Your task to perform on an android device: turn off data saver in the chrome app Image 0: 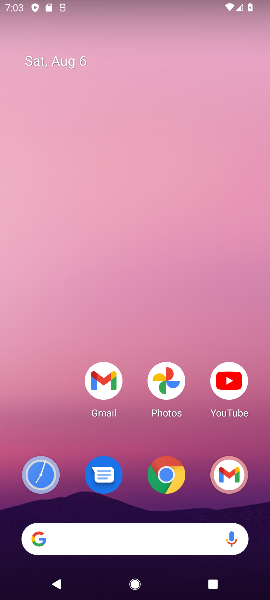
Step 0: click (170, 462)
Your task to perform on an android device: turn off data saver in the chrome app Image 1: 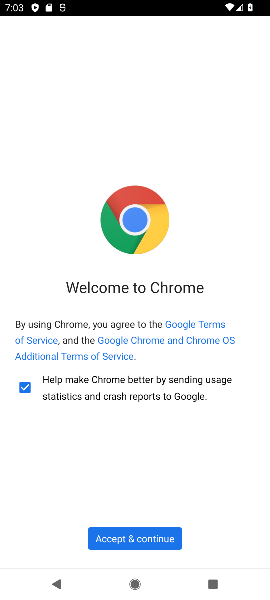
Step 1: click (138, 530)
Your task to perform on an android device: turn off data saver in the chrome app Image 2: 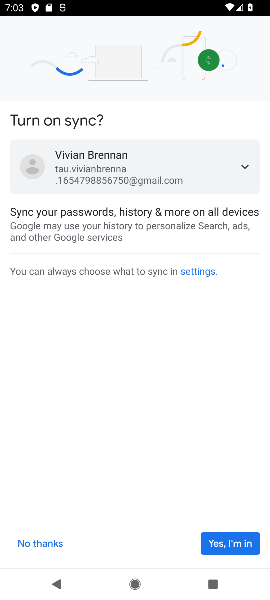
Step 2: click (209, 542)
Your task to perform on an android device: turn off data saver in the chrome app Image 3: 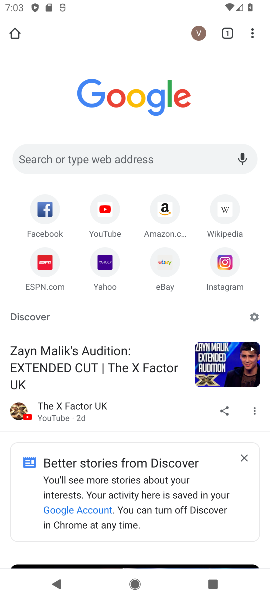
Step 3: click (251, 33)
Your task to perform on an android device: turn off data saver in the chrome app Image 4: 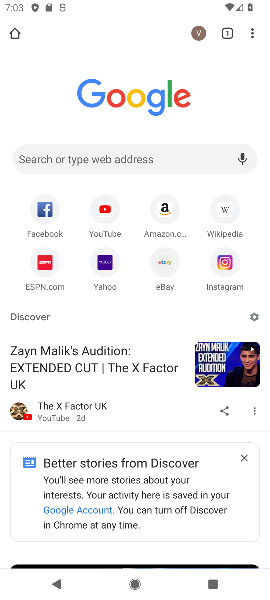
Step 4: click (251, 34)
Your task to perform on an android device: turn off data saver in the chrome app Image 5: 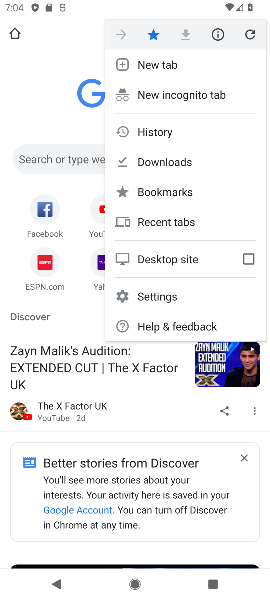
Step 5: click (160, 297)
Your task to perform on an android device: turn off data saver in the chrome app Image 6: 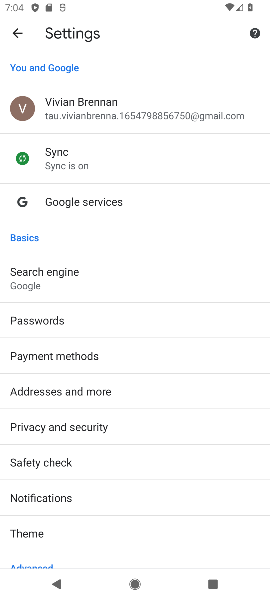
Step 6: drag from (106, 533) to (128, 218)
Your task to perform on an android device: turn off data saver in the chrome app Image 7: 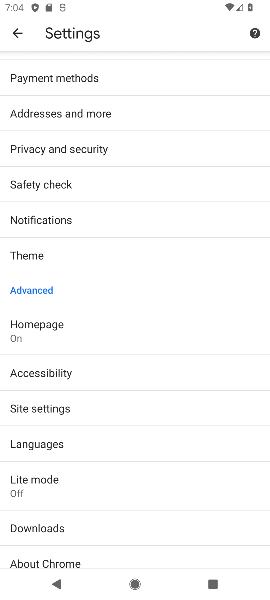
Step 7: click (72, 495)
Your task to perform on an android device: turn off data saver in the chrome app Image 8: 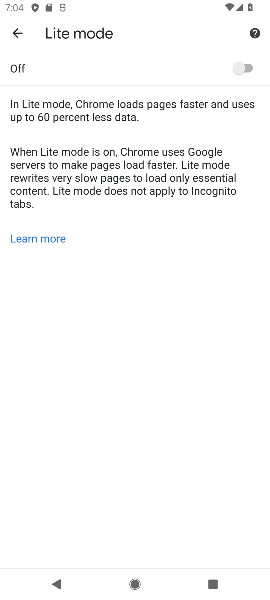
Step 8: task complete